Your task to perform on an android device: Go to calendar. Show me events next week Image 0: 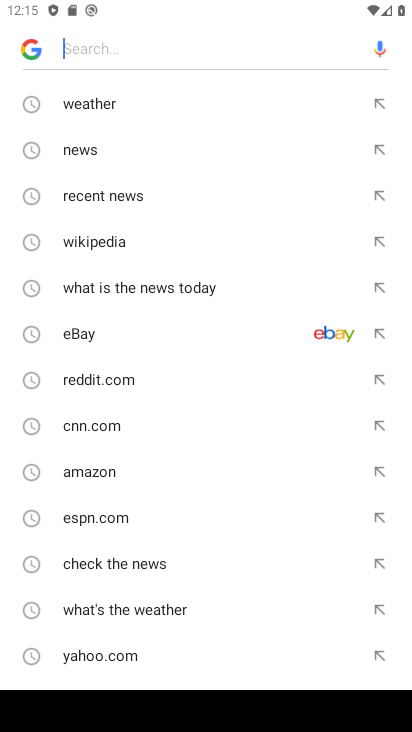
Step 0: press back button
Your task to perform on an android device: Go to calendar. Show me events next week Image 1: 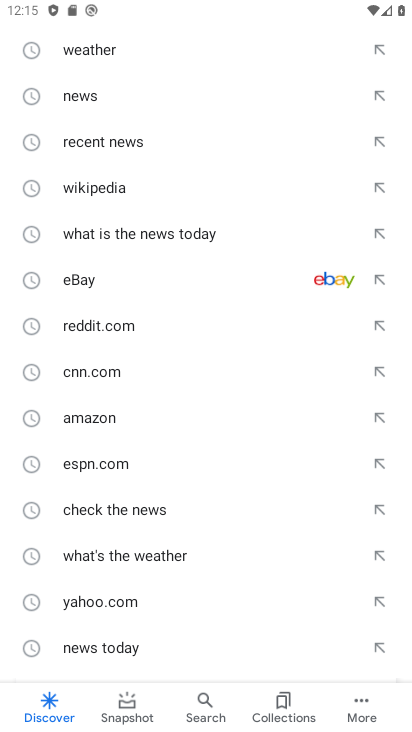
Step 1: press back button
Your task to perform on an android device: Go to calendar. Show me events next week Image 2: 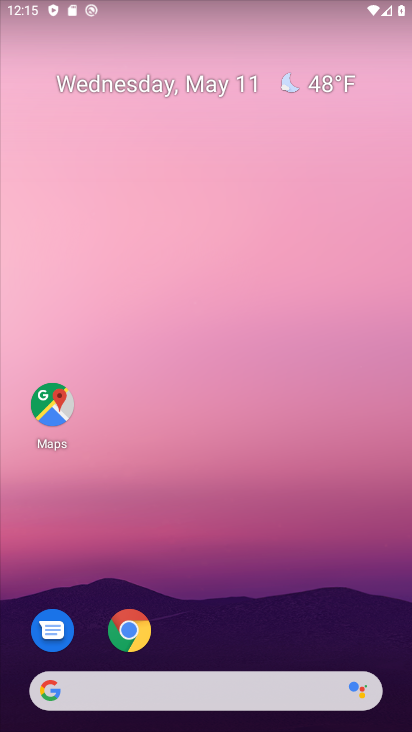
Step 2: drag from (191, 672) to (337, 134)
Your task to perform on an android device: Go to calendar. Show me events next week Image 3: 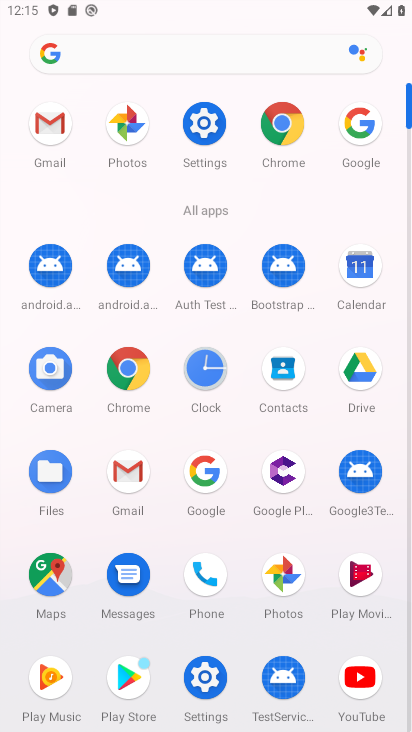
Step 3: click (355, 284)
Your task to perform on an android device: Go to calendar. Show me events next week Image 4: 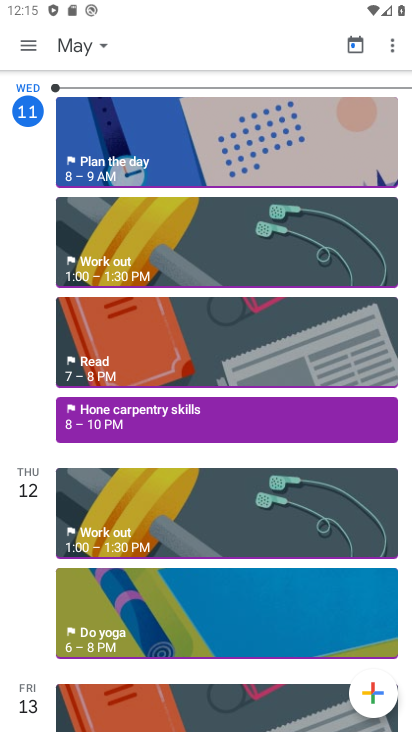
Step 4: click (23, 44)
Your task to perform on an android device: Go to calendar. Show me events next week Image 5: 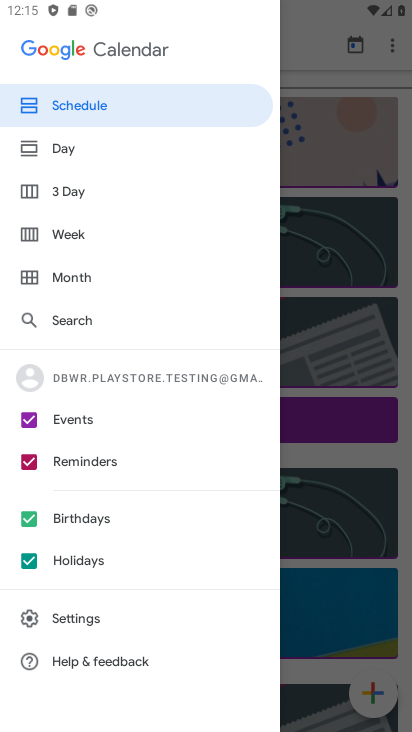
Step 5: click (76, 234)
Your task to perform on an android device: Go to calendar. Show me events next week Image 6: 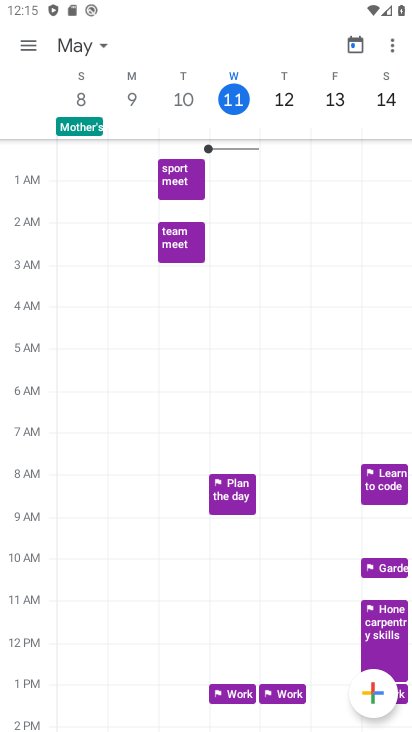
Step 6: task complete